Your task to perform on an android device: empty trash in the gmail app Image 0: 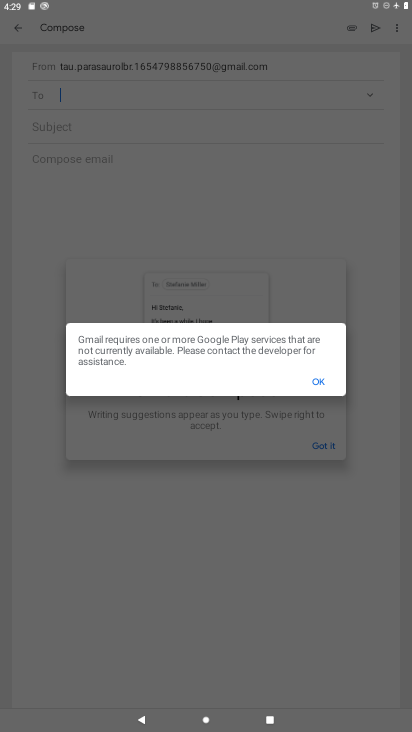
Step 0: press home button
Your task to perform on an android device: empty trash in the gmail app Image 1: 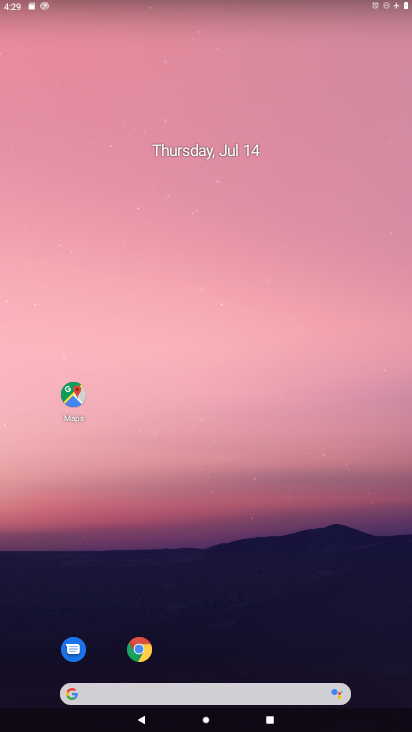
Step 1: drag from (199, 650) to (307, 7)
Your task to perform on an android device: empty trash in the gmail app Image 2: 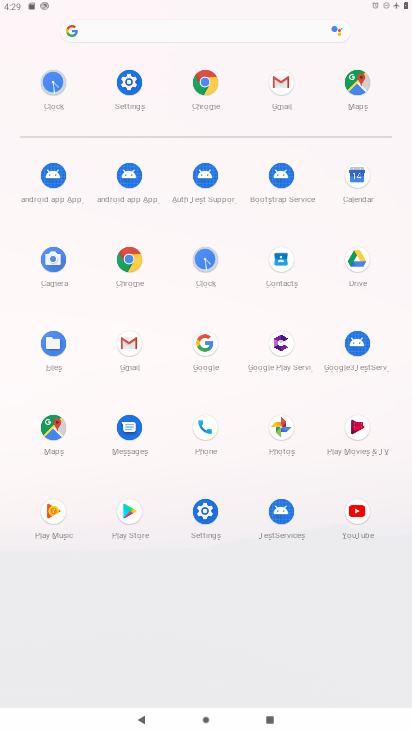
Step 2: click (133, 342)
Your task to perform on an android device: empty trash in the gmail app Image 3: 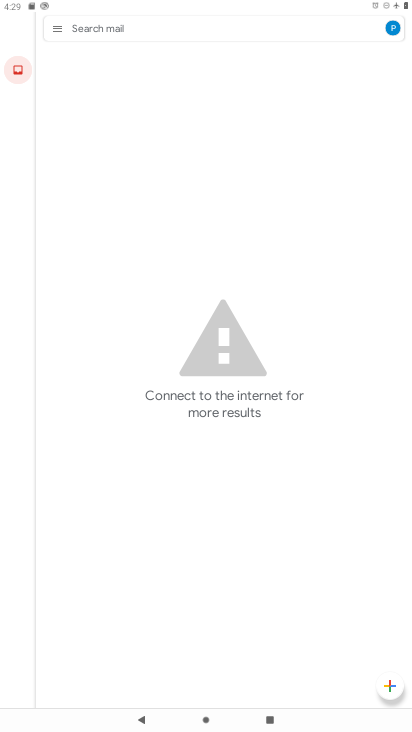
Step 3: click (55, 20)
Your task to perform on an android device: empty trash in the gmail app Image 4: 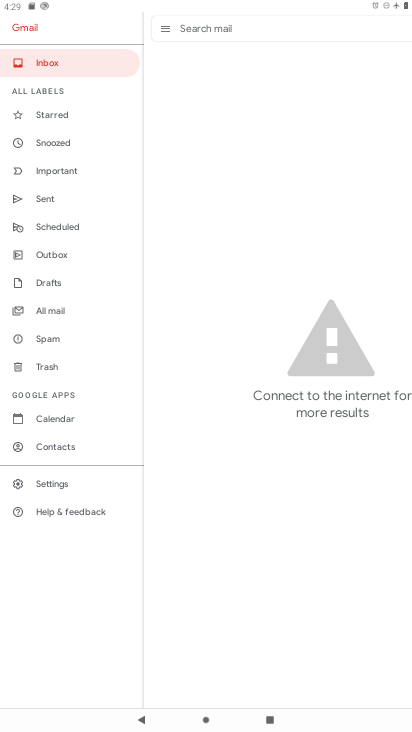
Step 4: click (57, 367)
Your task to perform on an android device: empty trash in the gmail app Image 5: 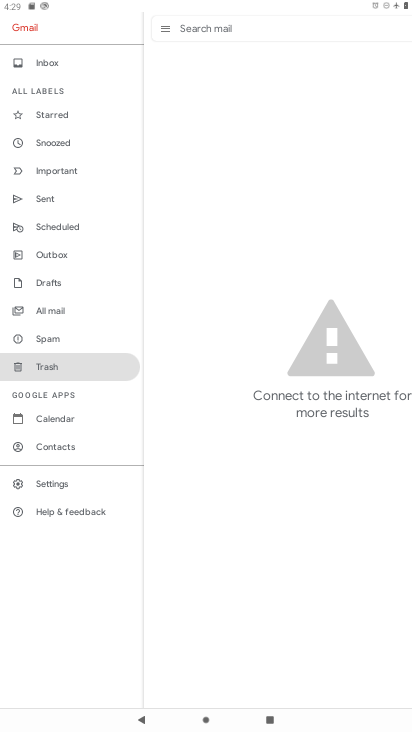
Step 5: task complete